Your task to perform on an android device: turn off notifications in google photos Image 0: 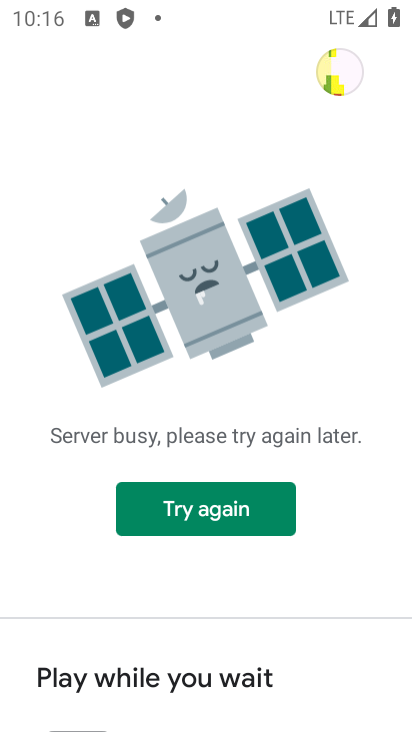
Step 0: click (236, 512)
Your task to perform on an android device: turn off notifications in google photos Image 1: 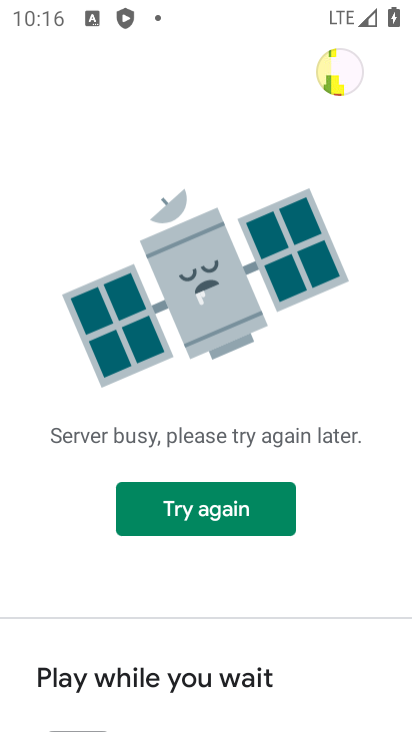
Step 1: press home button
Your task to perform on an android device: turn off notifications in google photos Image 2: 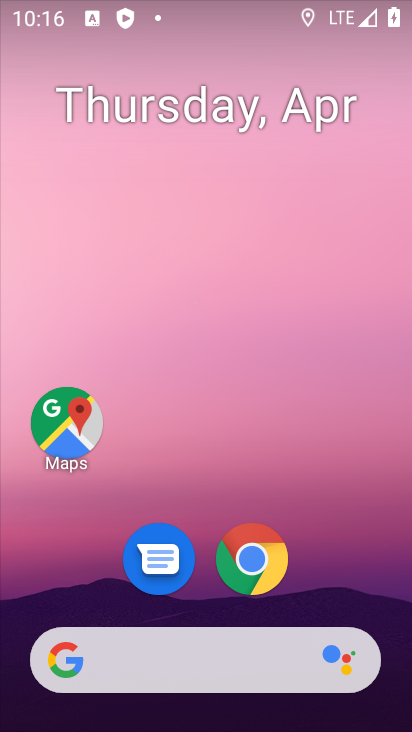
Step 2: drag from (198, 560) to (203, 197)
Your task to perform on an android device: turn off notifications in google photos Image 3: 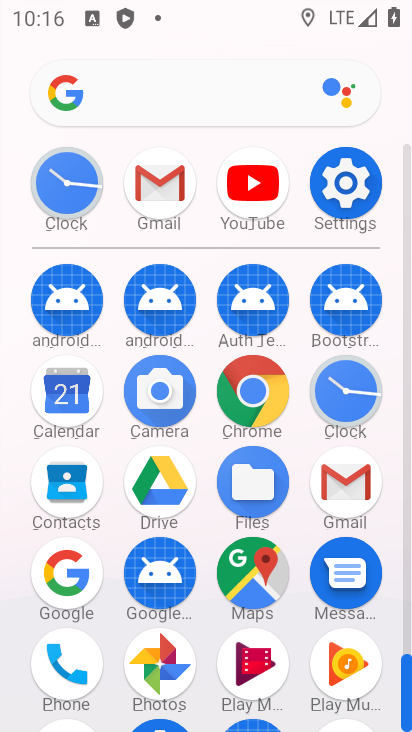
Step 3: click (156, 646)
Your task to perform on an android device: turn off notifications in google photos Image 4: 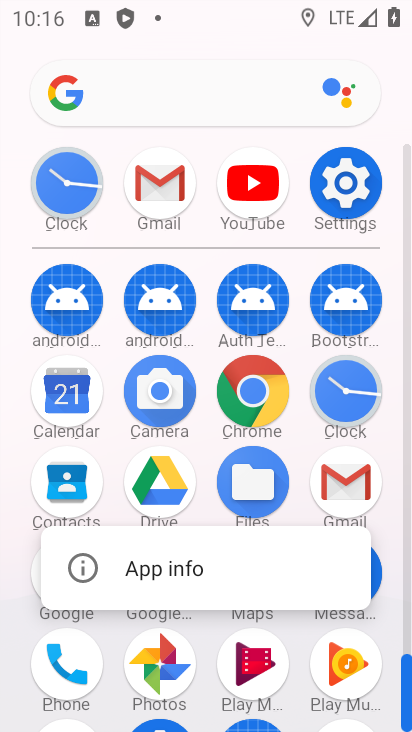
Step 4: click (210, 572)
Your task to perform on an android device: turn off notifications in google photos Image 5: 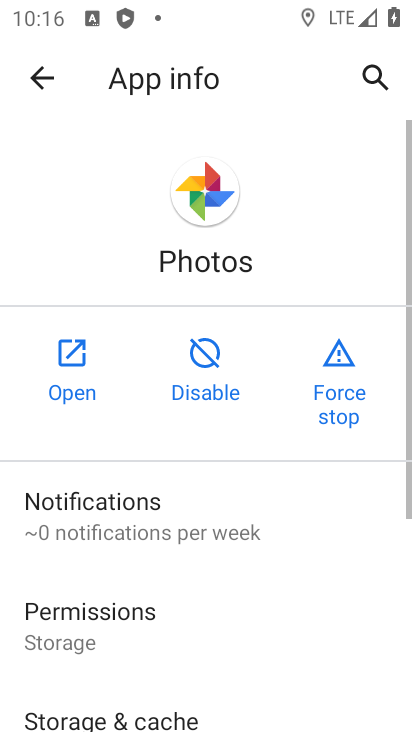
Step 5: click (120, 524)
Your task to perform on an android device: turn off notifications in google photos Image 6: 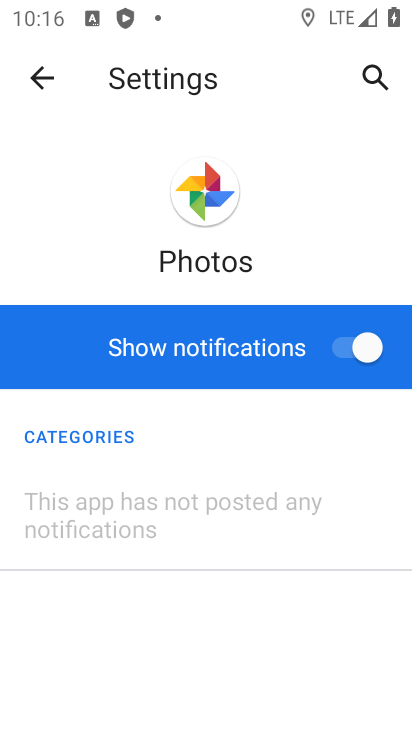
Step 6: click (347, 348)
Your task to perform on an android device: turn off notifications in google photos Image 7: 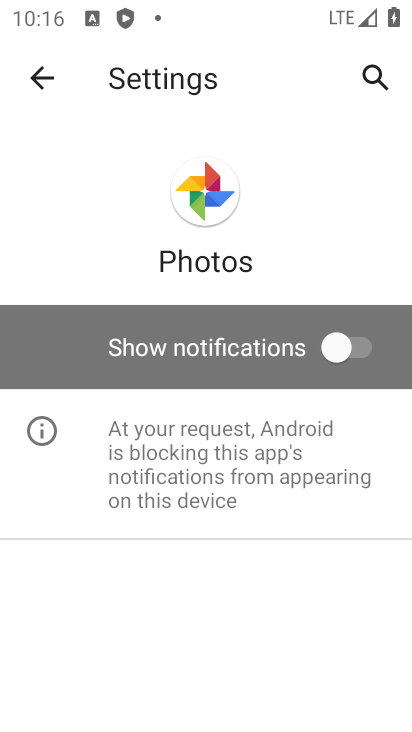
Step 7: task complete